Your task to perform on an android device: toggle notification dots Image 0: 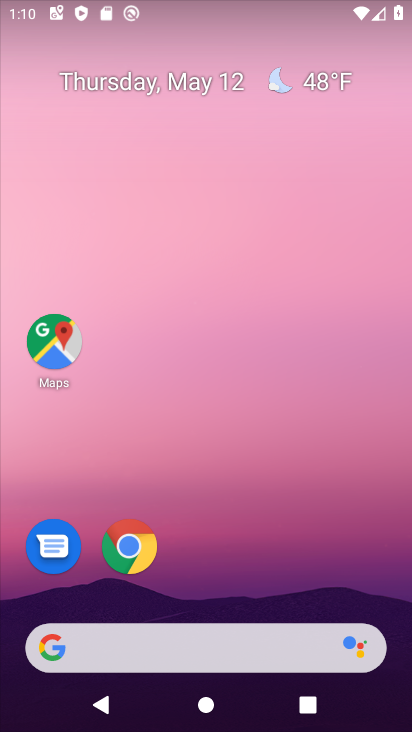
Step 0: drag from (157, 654) to (326, 74)
Your task to perform on an android device: toggle notification dots Image 1: 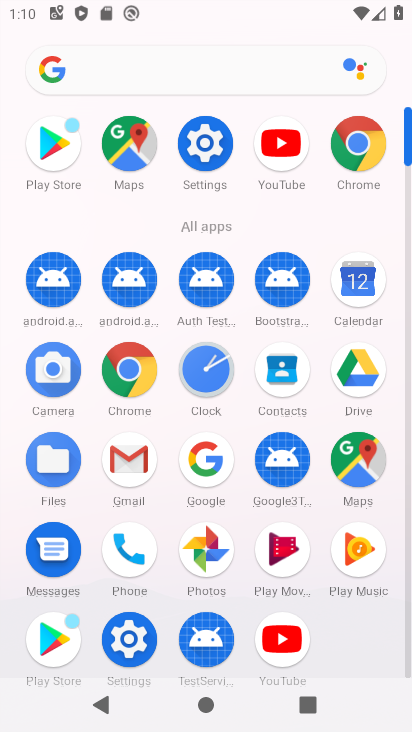
Step 1: click (204, 148)
Your task to perform on an android device: toggle notification dots Image 2: 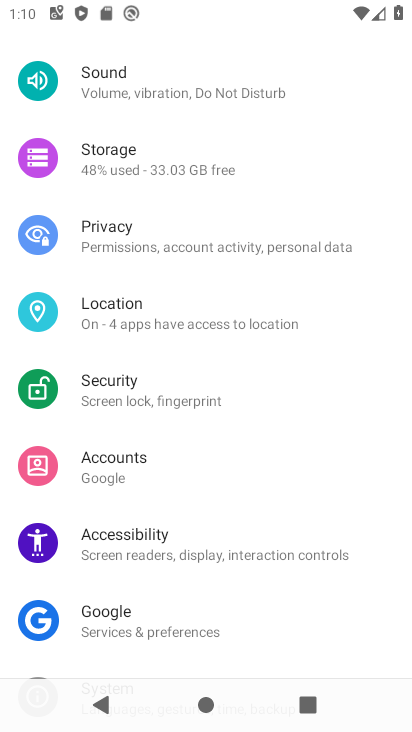
Step 2: drag from (297, 180) to (212, 542)
Your task to perform on an android device: toggle notification dots Image 3: 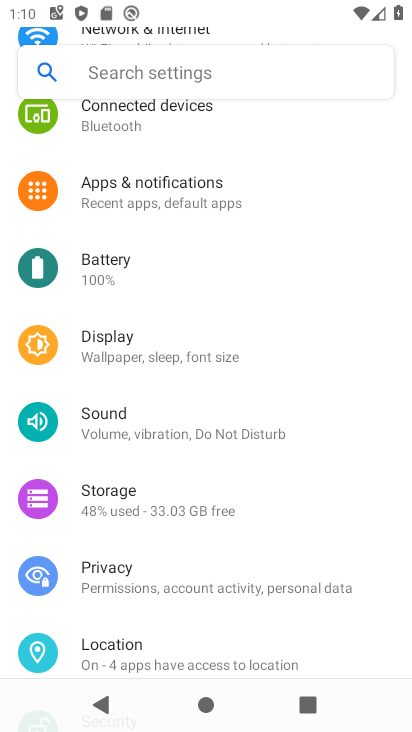
Step 3: click (173, 184)
Your task to perform on an android device: toggle notification dots Image 4: 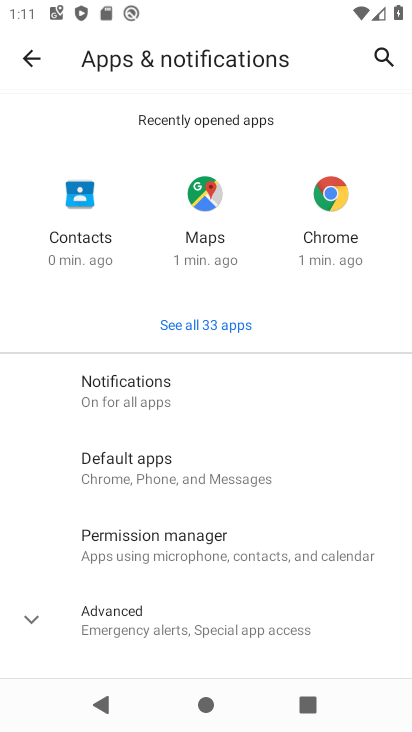
Step 4: click (141, 379)
Your task to perform on an android device: toggle notification dots Image 5: 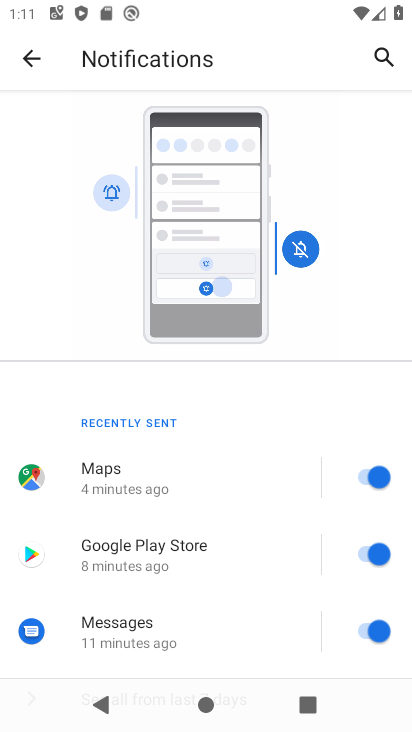
Step 5: drag from (204, 637) to (393, 174)
Your task to perform on an android device: toggle notification dots Image 6: 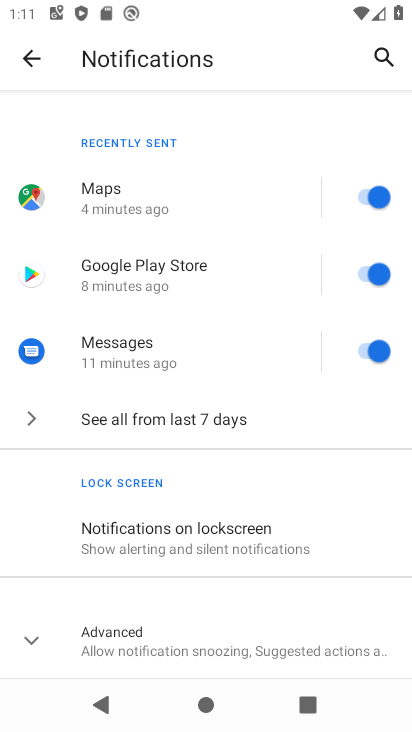
Step 6: click (140, 643)
Your task to perform on an android device: toggle notification dots Image 7: 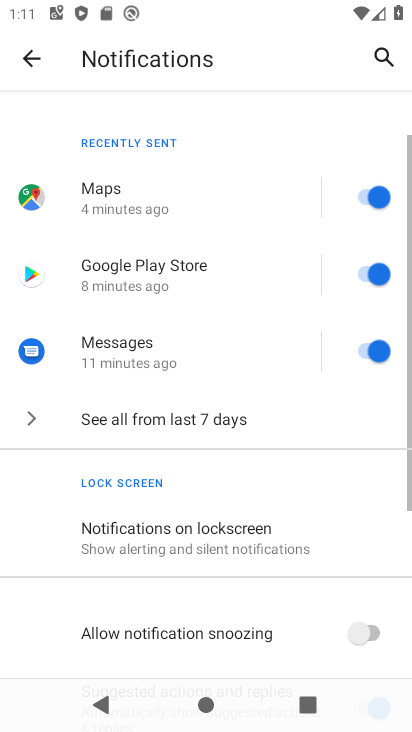
Step 7: drag from (210, 591) to (378, 254)
Your task to perform on an android device: toggle notification dots Image 8: 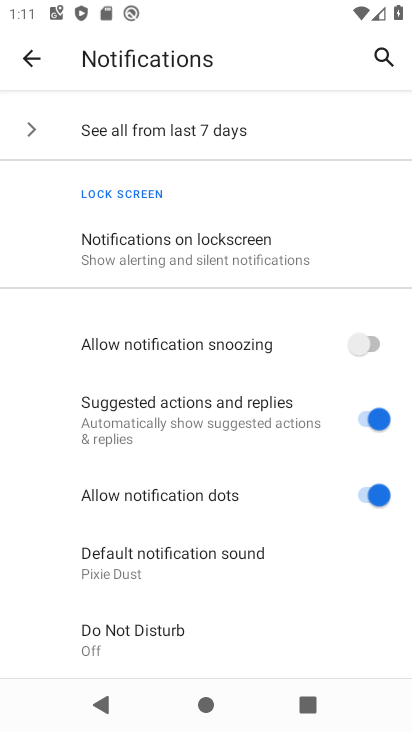
Step 8: click (366, 496)
Your task to perform on an android device: toggle notification dots Image 9: 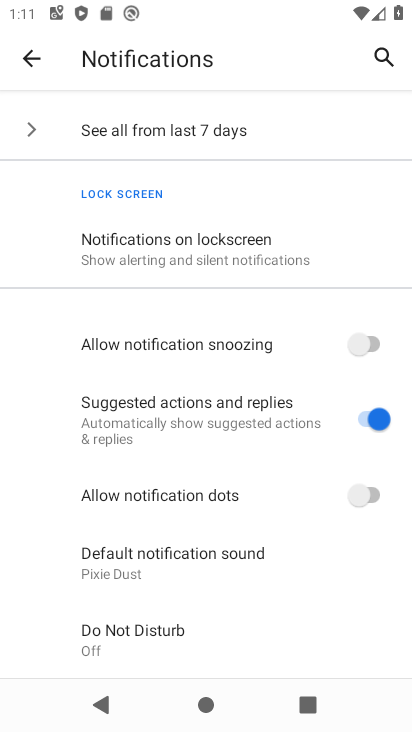
Step 9: task complete